Your task to perform on an android device: change keyboard looks Image 0: 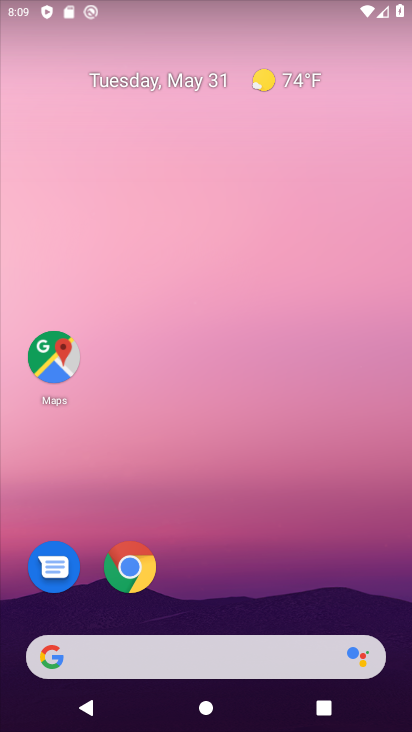
Step 0: drag from (257, 697) to (175, 99)
Your task to perform on an android device: change keyboard looks Image 1: 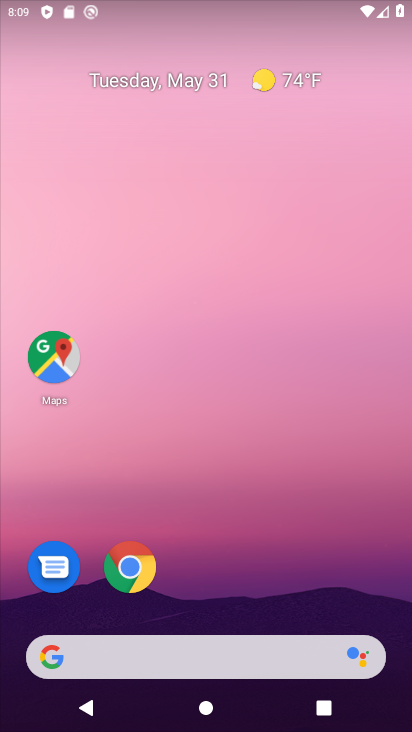
Step 1: drag from (210, 703) to (136, 147)
Your task to perform on an android device: change keyboard looks Image 2: 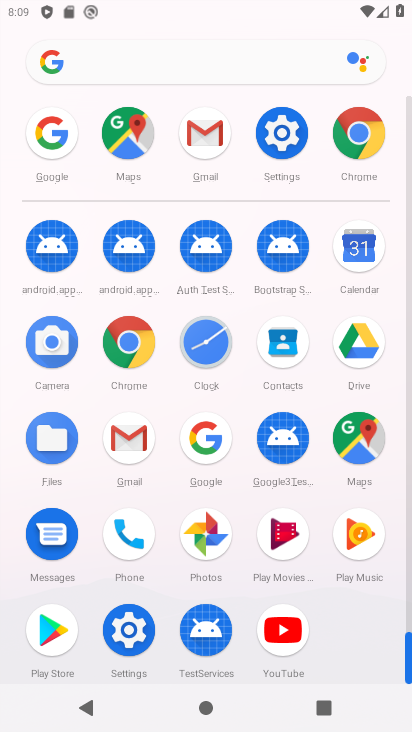
Step 2: click (281, 134)
Your task to perform on an android device: change keyboard looks Image 3: 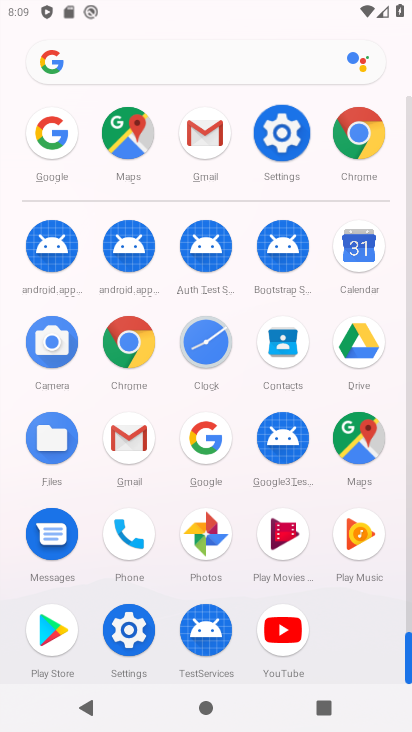
Step 3: click (281, 134)
Your task to perform on an android device: change keyboard looks Image 4: 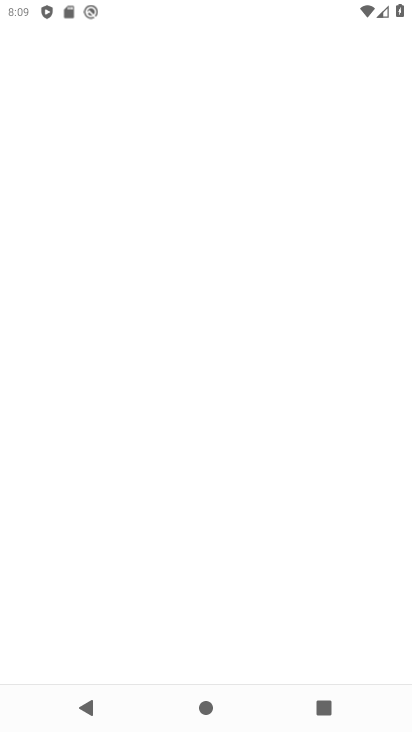
Step 4: click (281, 133)
Your task to perform on an android device: change keyboard looks Image 5: 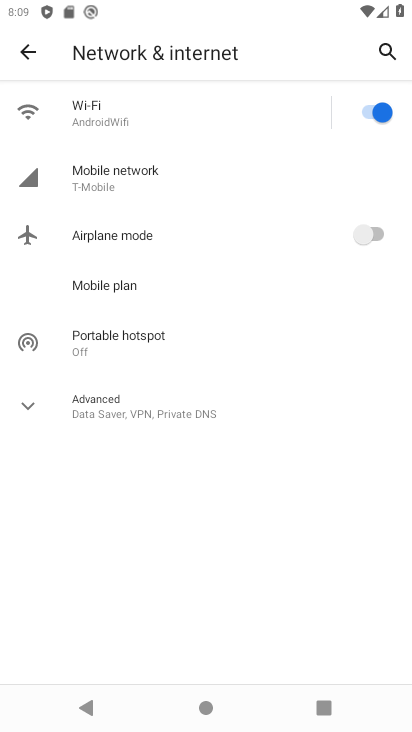
Step 5: click (26, 49)
Your task to perform on an android device: change keyboard looks Image 6: 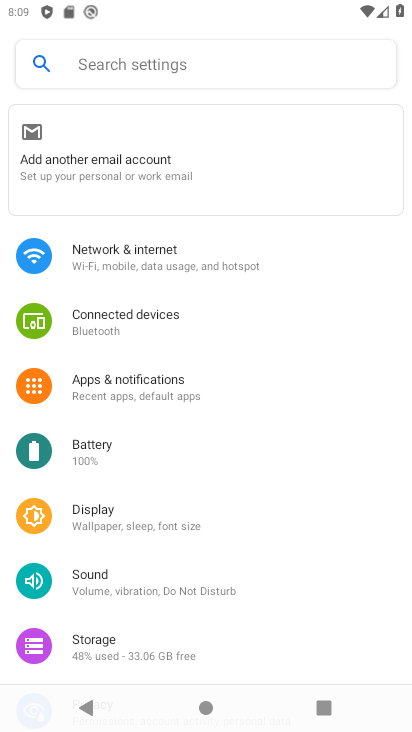
Step 6: drag from (207, 603) to (123, 221)
Your task to perform on an android device: change keyboard looks Image 7: 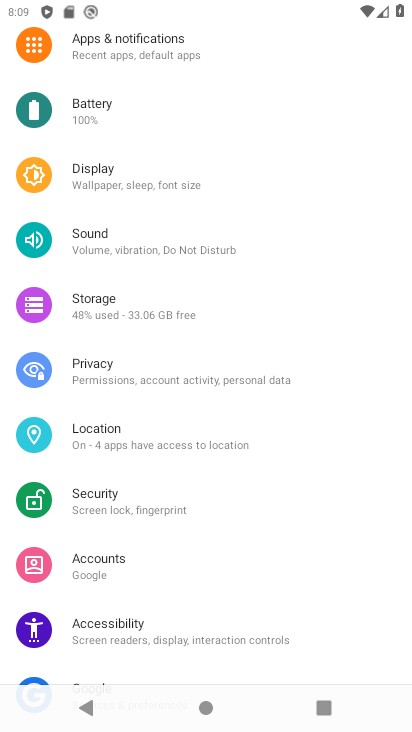
Step 7: drag from (193, 511) to (158, 191)
Your task to perform on an android device: change keyboard looks Image 8: 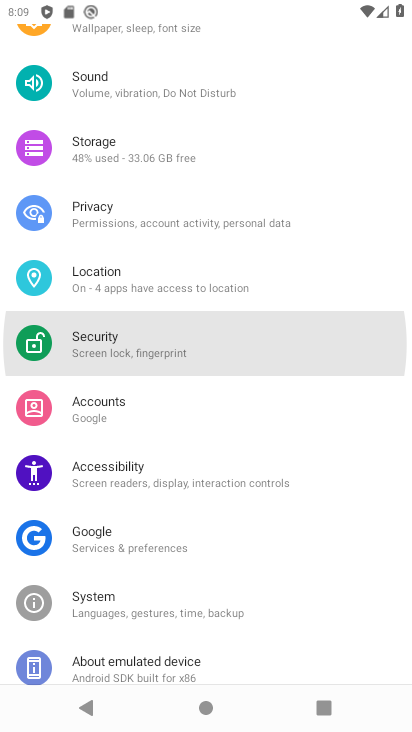
Step 8: drag from (139, 457) to (137, 138)
Your task to perform on an android device: change keyboard looks Image 9: 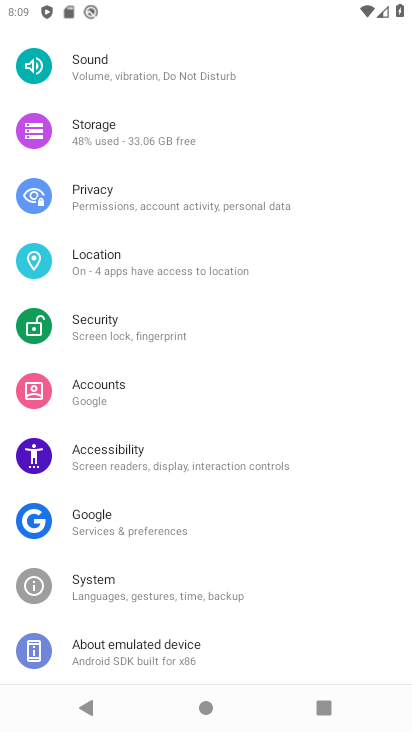
Step 9: click (99, 581)
Your task to perform on an android device: change keyboard looks Image 10: 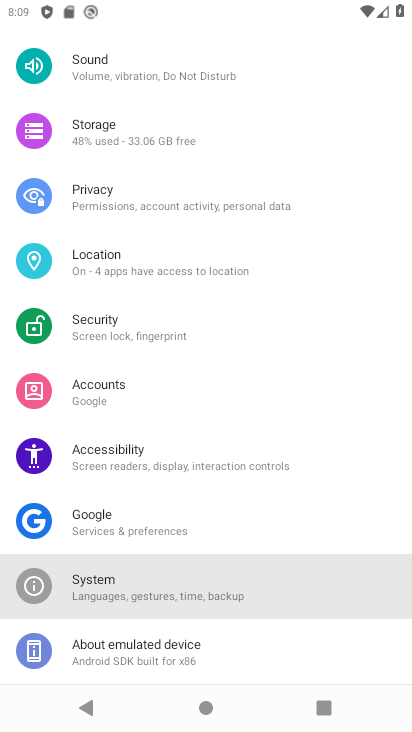
Step 10: click (104, 583)
Your task to perform on an android device: change keyboard looks Image 11: 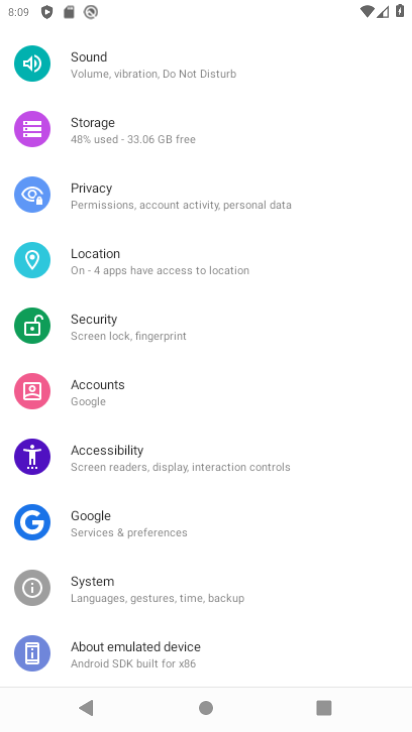
Step 11: click (104, 583)
Your task to perform on an android device: change keyboard looks Image 12: 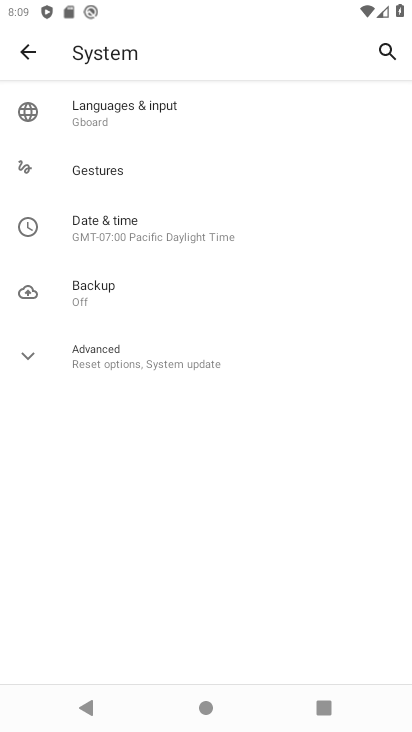
Step 12: click (81, 111)
Your task to perform on an android device: change keyboard looks Image 13: 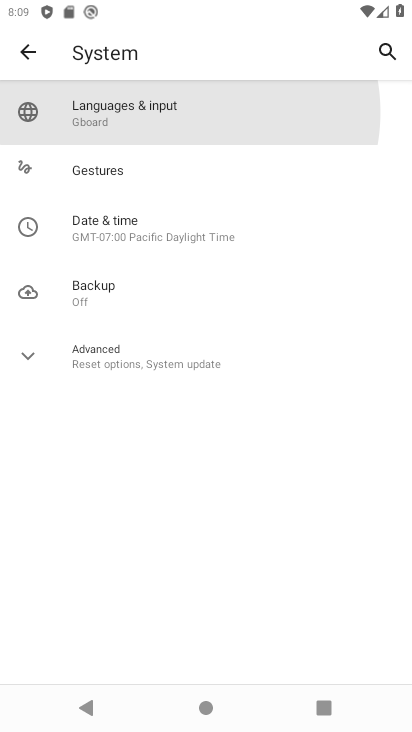
Step 13: click (81, 111)
Your task to perform on an android device: change keyboard looks Image 14: 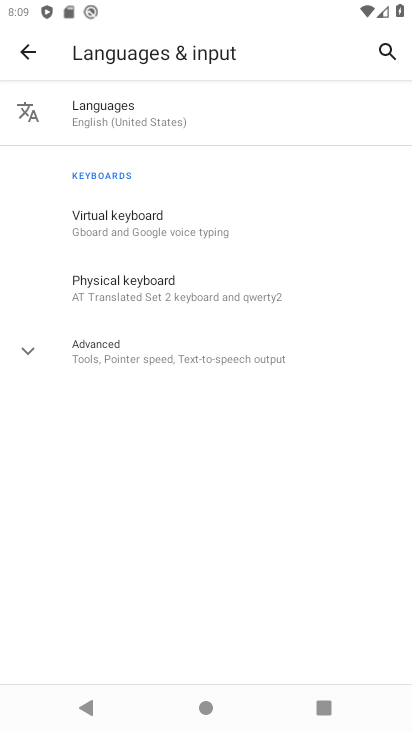
Step 14: click (110, 208)
Your task to perform on an android device: change keyboard looks Image 15: 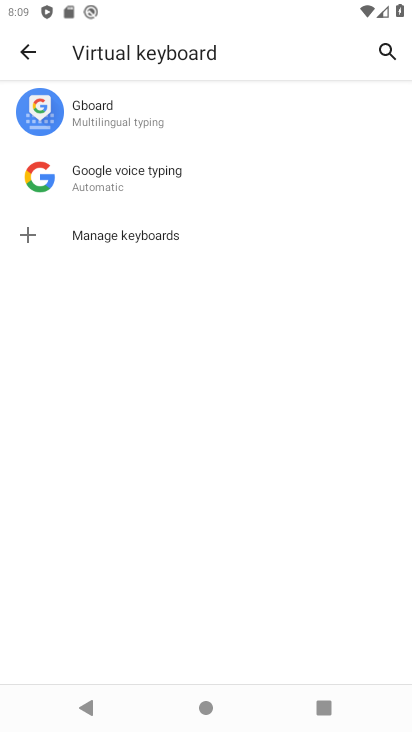
Step 15: click (87, 113)
Your task to perform on an android device: change keyboard looks Image 16: 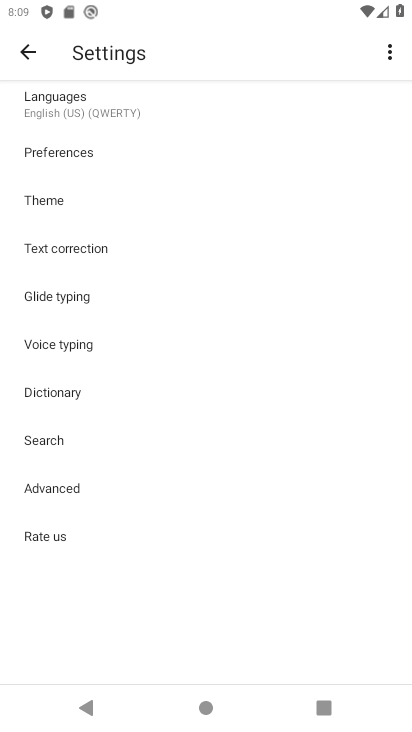
Step 16: click (33, 193)
Your task to perform on an android device: change keyboard looks Image 17: 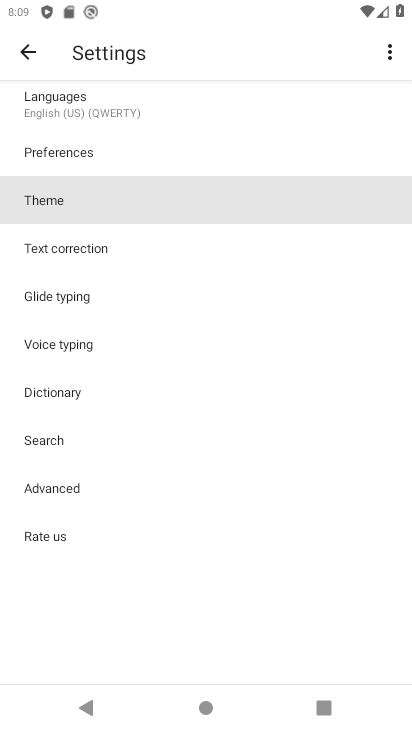
Step 17: click (33, 193)
Your task to perform on an android device: change keyboard looks Image 18: 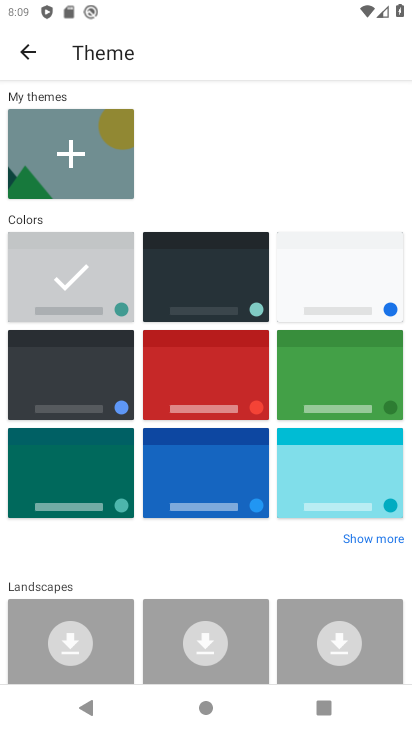
Step 18: click (200, 460)
Your task to perform on an android device: change keyboard looks Image 19: 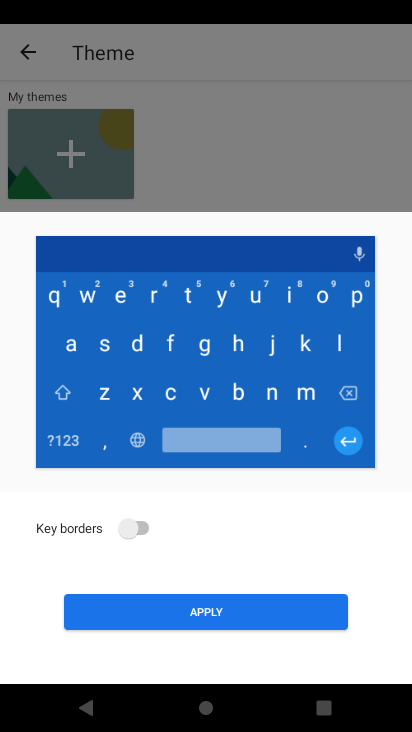
Step 19: click (204, 608)
Your task to perform on an android device: change keyboard looks Image 20: 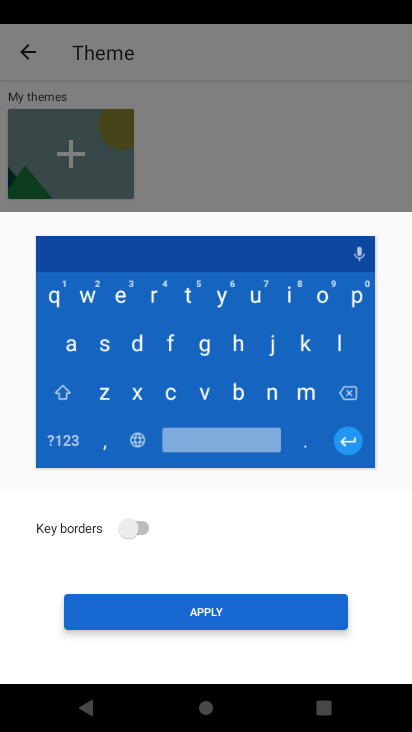
Step 20: click (204, 609)
Your task to perform on an android device: change keyboard looks Image 21: 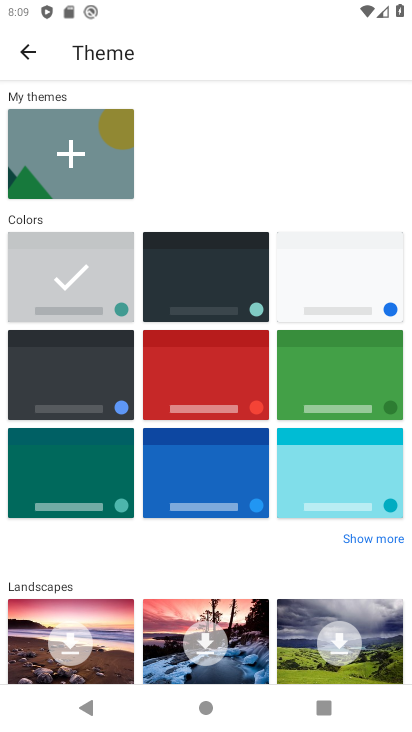
Step 21: click (206, 628)
Your task to perform on an android device: change keyboard looks Image 22: 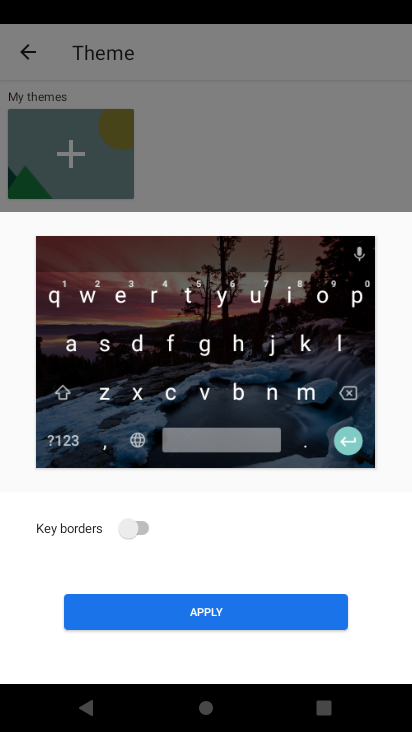
Step 22: task complete